Your task to perform on an android device: Open the map Image 0: 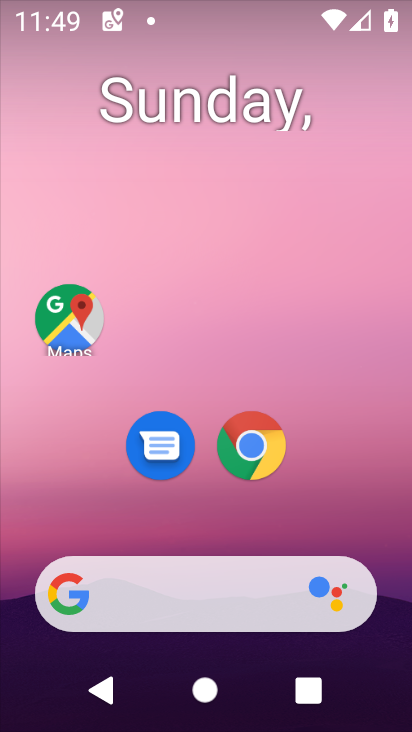
Step 0: click (62, 338)
Your task to perform on an android device: Open the map Image 1: 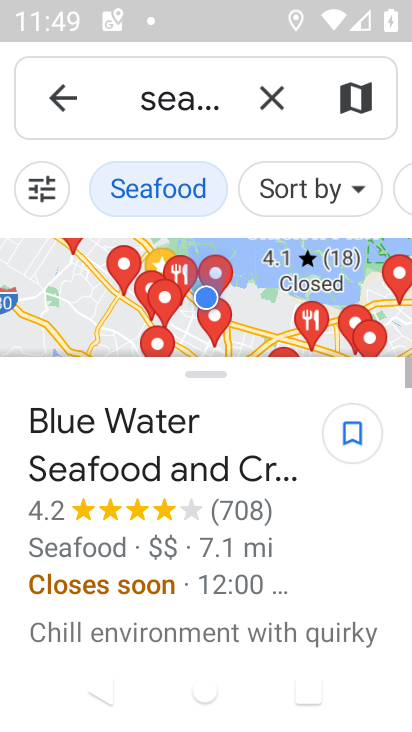
Step 1: task complete